Your task to perform on an android device: Open wifi settings Image 0: 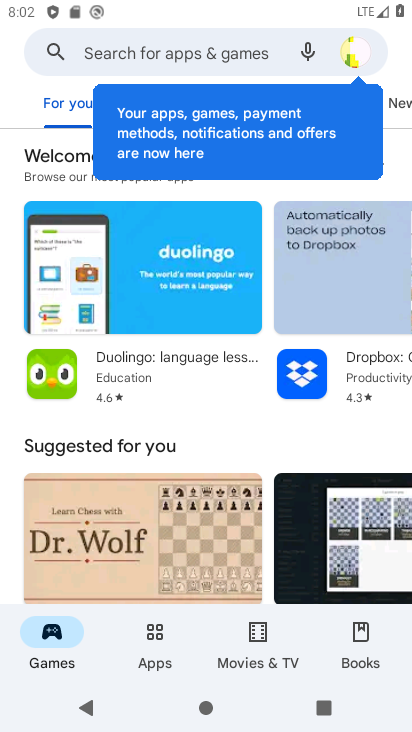
Step 0: drag from (121, 12) to (163, 489)
Your task to perform on an android device: Open wifi settings Image 1: 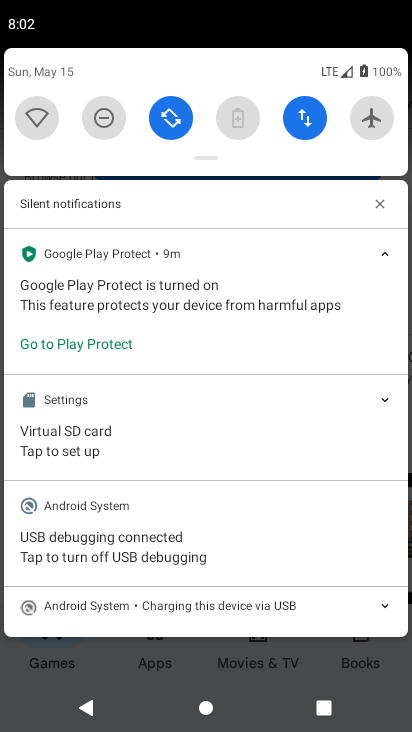
Step 1: click (41, 127)
Your task to perform on an android device: Open wifi settings Image 2: 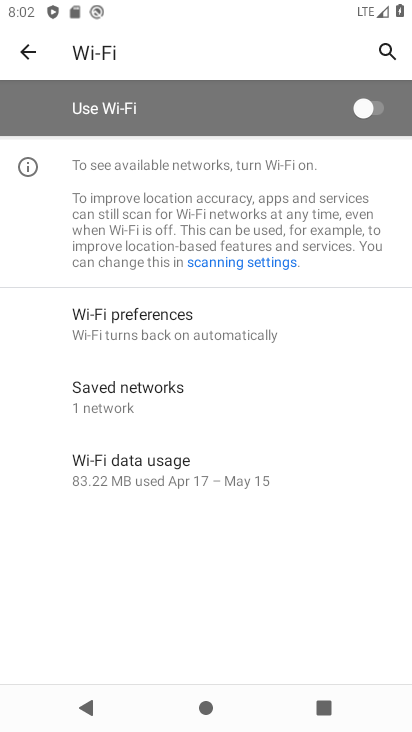
Step 2: task complete